Your task to perform on an android device: refresh tabs in the chrome app Image 0: 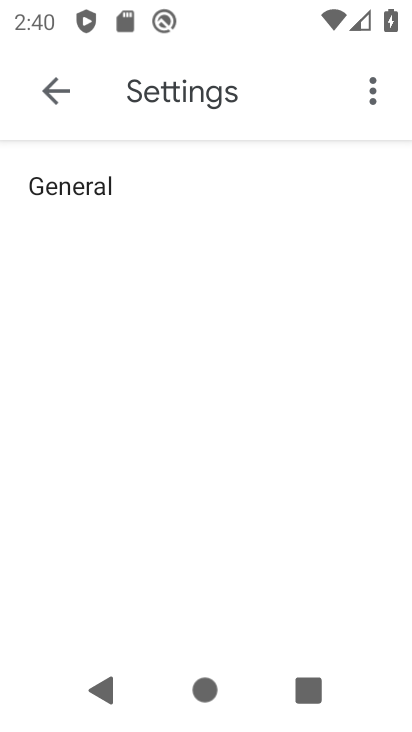
Step 0: press home button
Your task to perform on an android device: refresh tabs in the chrome app Image 1: 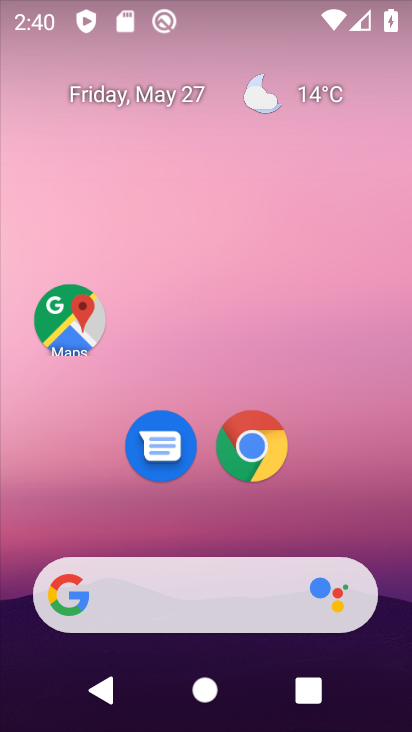
Step 1: click (249, 452)
Your task to perform on an android device: refresh tabs in the chrome app Image 2: 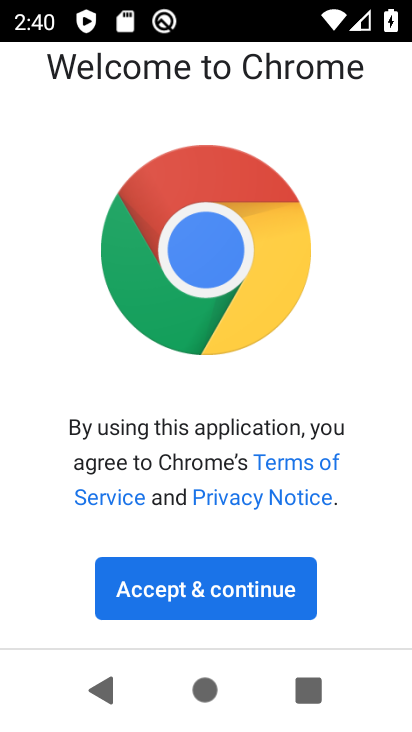
Step 2: click (221, 577)
Your task to perform on an android device: refresh tabs in the chrome app Image 3: 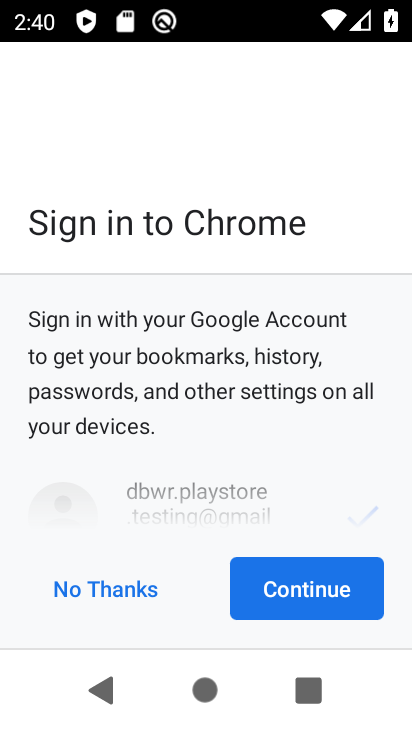
Step 3: click (322, 604)
Your task to perform on an android device: refresh tabs in the chrome app Image 4: 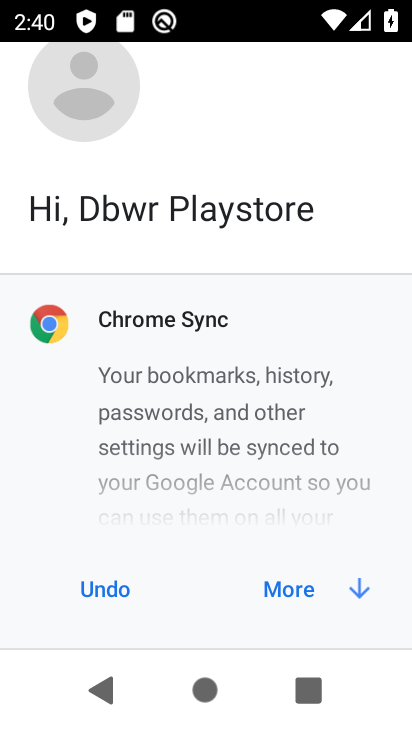
Step 4: click (304, 583)
Your task to perform on an android device: refresh tabs in the chrome app Image 5: 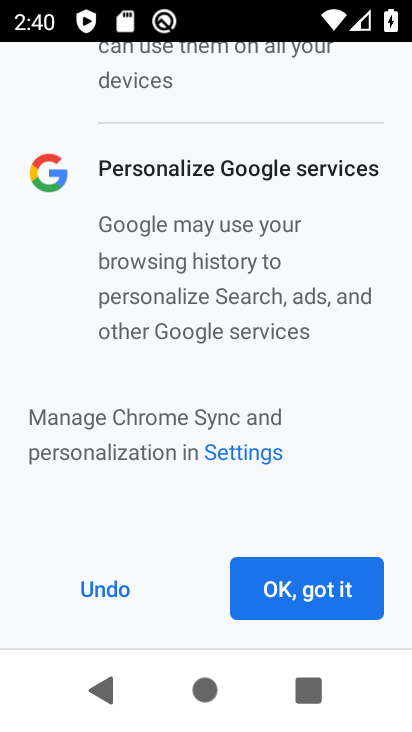
Step 5: click (281, 597)
Your task to perform on an android device: refresh tabs in the chrome app Image 6: 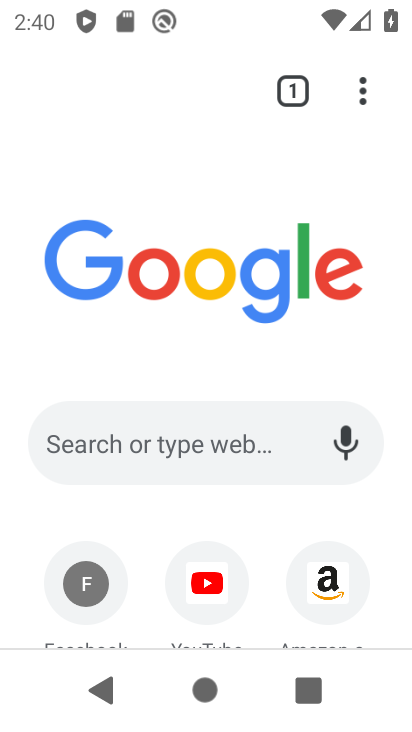
Step 6: click (362, 112)
Your task to perform on an android device: refresh tabs in the chrome app Image 7: 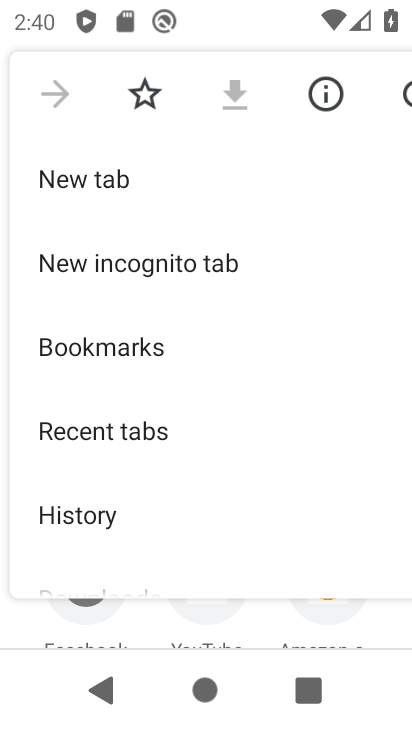
Step 7: click (404, 96)
Your task to perform on an android device: refresh tabs in the chrome app Image 8: 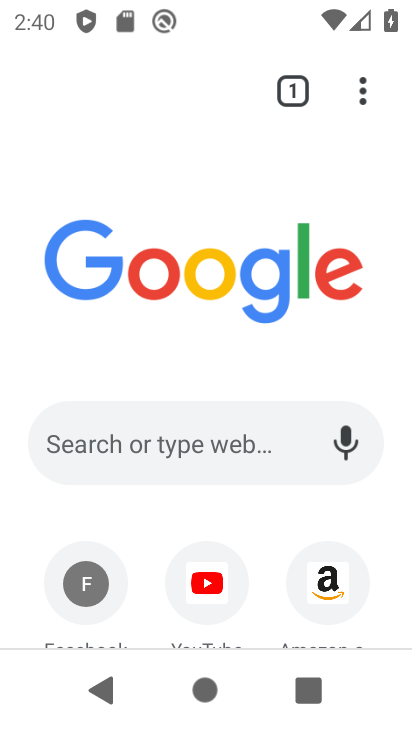
Step 8: task complete